Your task to perform on an android device: Open Google Image 0: 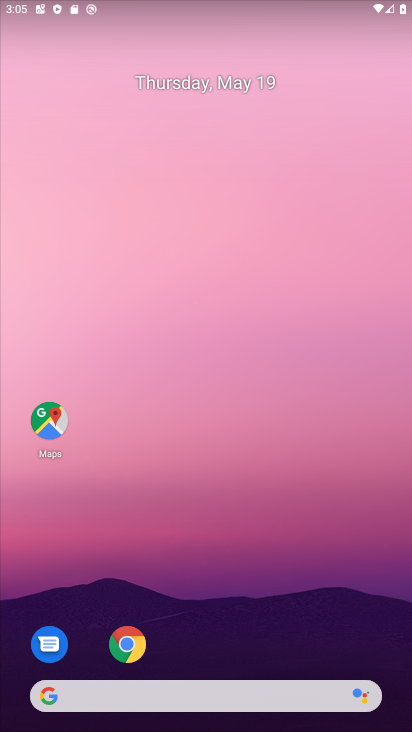
Step 0: drag from (184, 606) to (177, 170)
Your task to perform on an android device: Open Google Image 1: 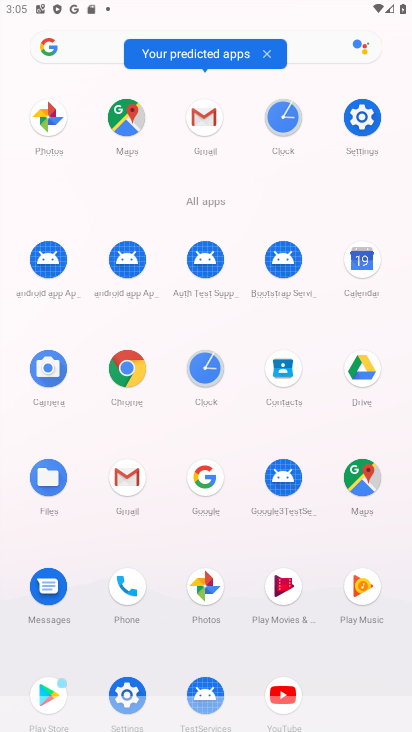
Step 1: click (205, 474)
Your task to perform on an android device: Open Google Image 2: 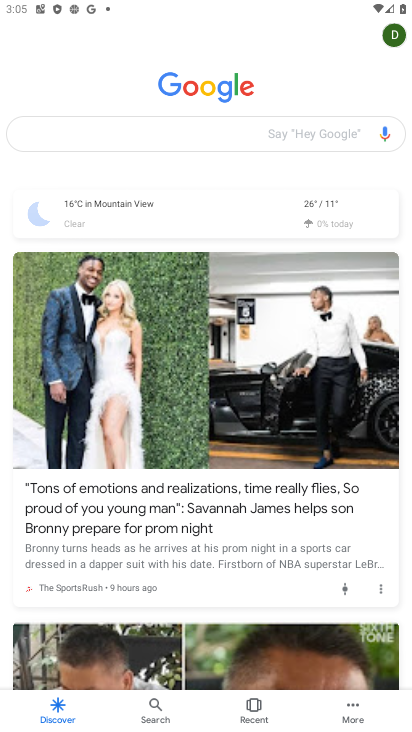
Step 2: task complete